Your task to perform on an android device: change the clock display to show seconds Image 0: 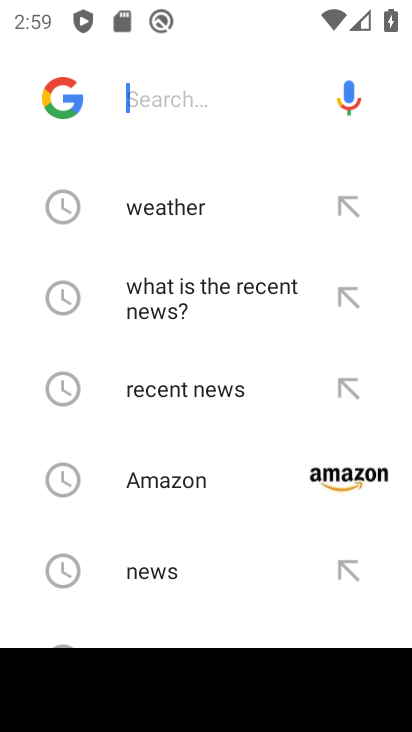
Step 0: press home button
Your task to perform on an android device: change the clock display to show seconds Image 1: 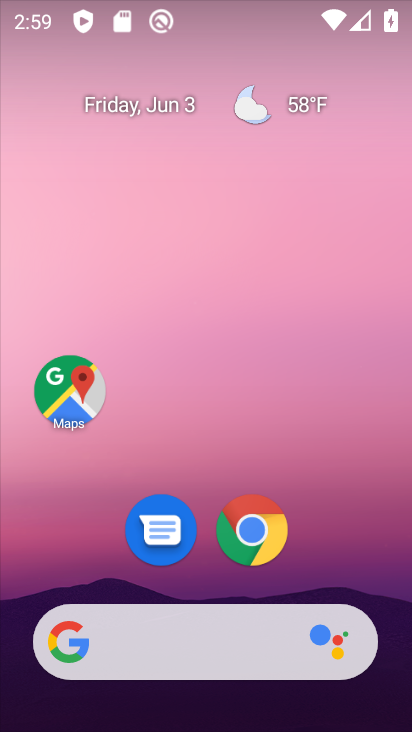
Step 1: drag from (98, 610) to (241, 171)
Your task to perform on an android device: change the clock display to show seconds Image 2: 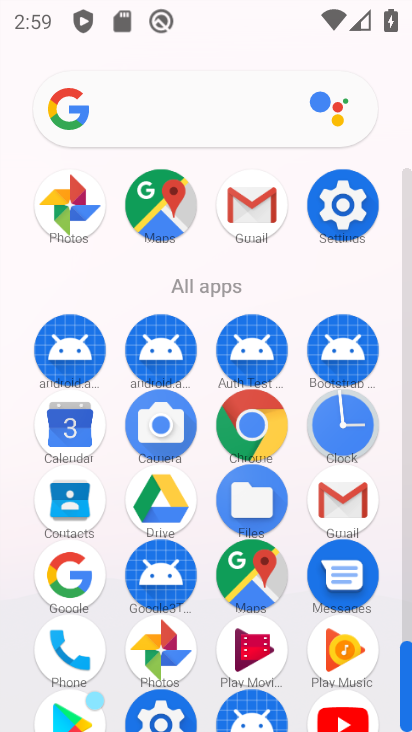
Step 2: drag from (139, 640) to (264, 344)
Your task to perform on an android device: change the clock display to show seconds Image 3: 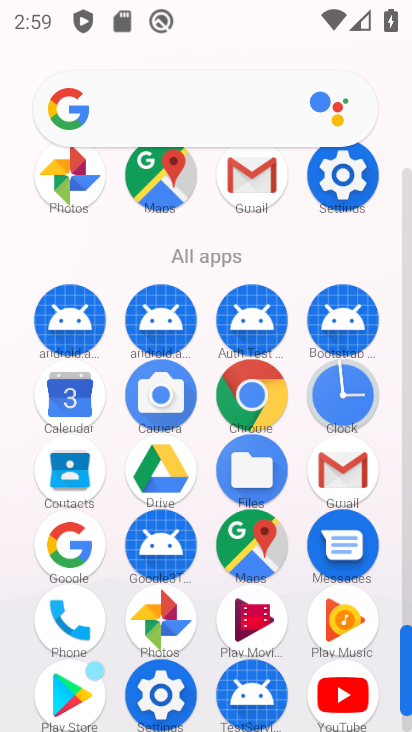
Step 3: click (341, 388)
Your task to perform on an android device: change the clock display to show seconds Image 4: 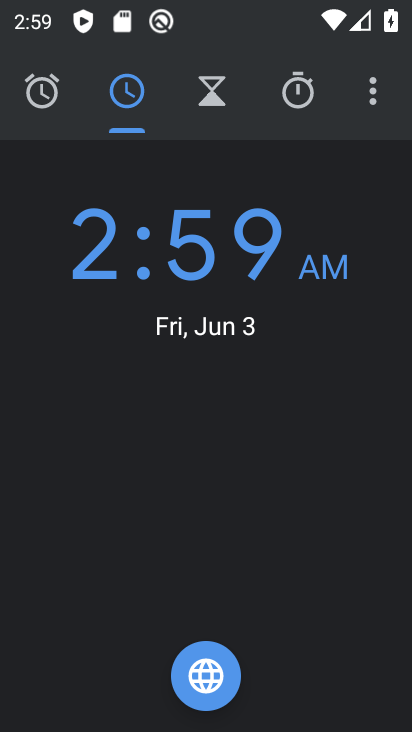
Step 4: click (384, 77)
Your task to perform on an android device: change the clock display to show seconds Image 5: 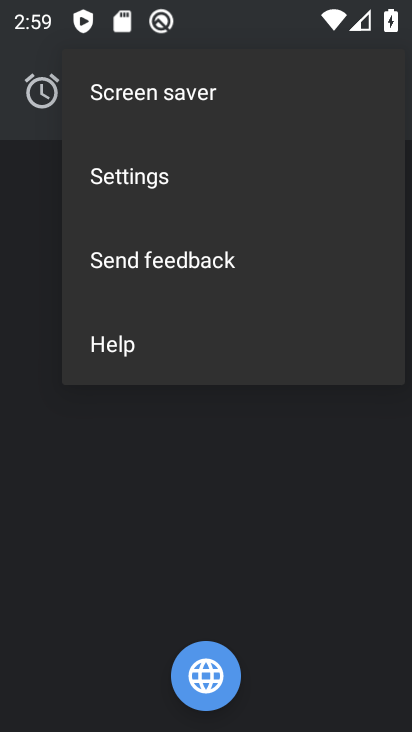
Step 5: click (323, 173)
Your task to perform on an android device: change the clock display to show seconds Image 6: 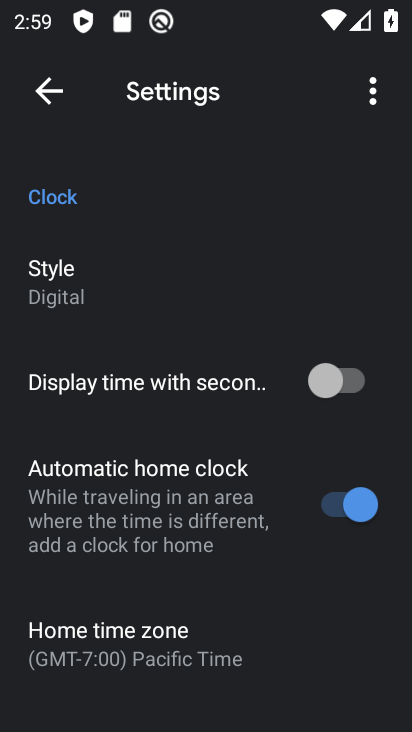
Step 6: click (356, 380)
Your task to perform on an android device: change the clock display to show seconds Image 7: 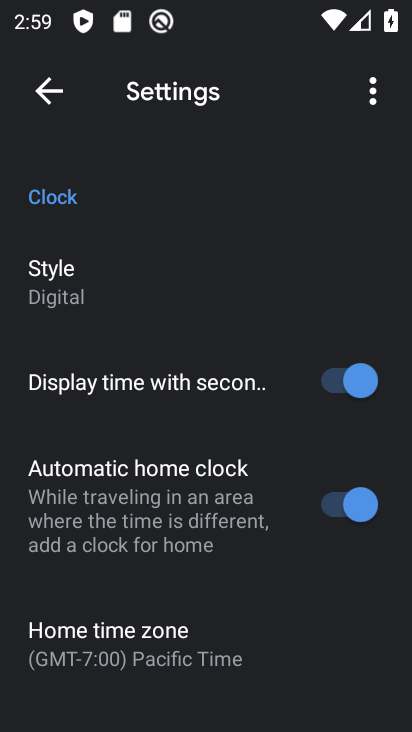
Step 7: task complete